Your task to perform on an android device: turn on priority inbox in the gmail app Image 0: 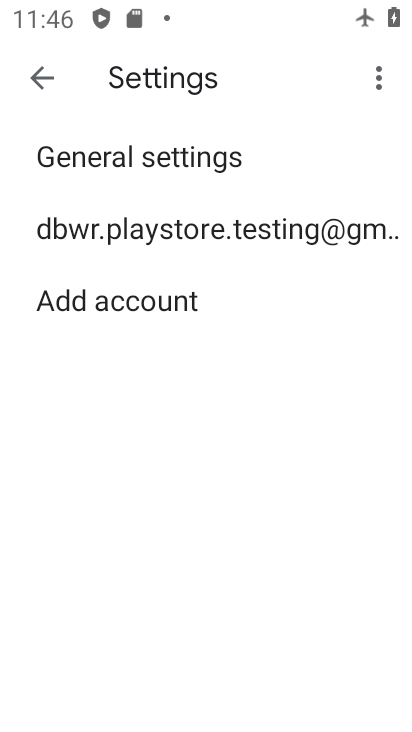
Step 0: press home button
Your task to perform on an android device: turn on priority inbox in the gmail app Image 1: 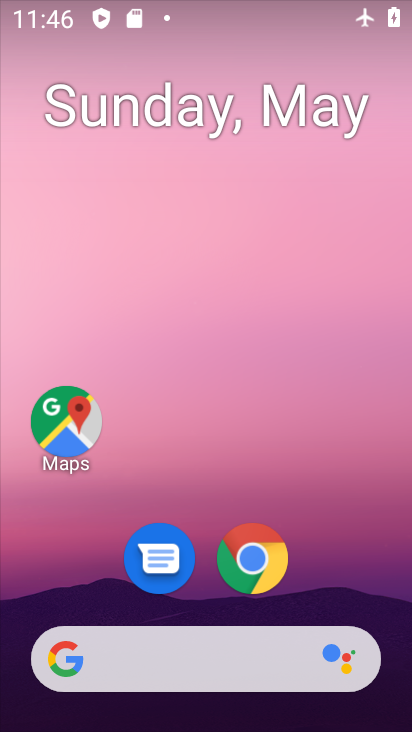
Step 1: drag from (359, 545) to (345, 196)
Your task to perform on an android device: turn on priority inbox in the gmail app Image 2: 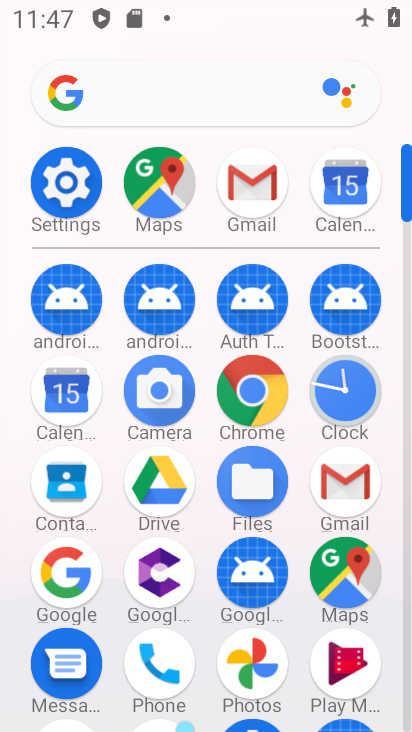
Step 2: click (354, 481)
Your task to perform on an android device: turn on priority inbox in the gmail app Image 3: 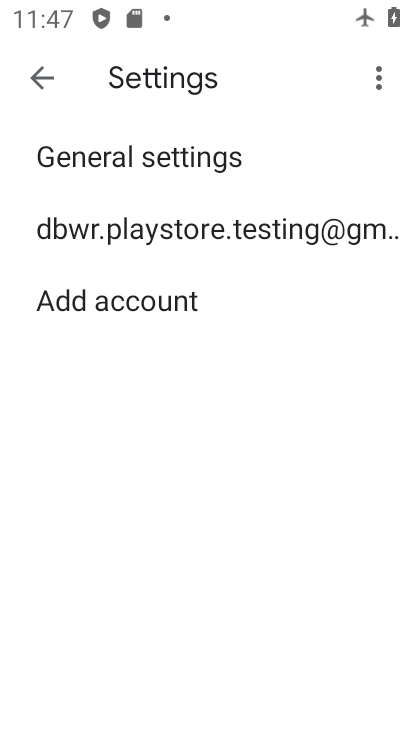
Step 3: click (158, 238)
Your task to perform on an android device: turn on priority inbox in the gmail app Image 4: 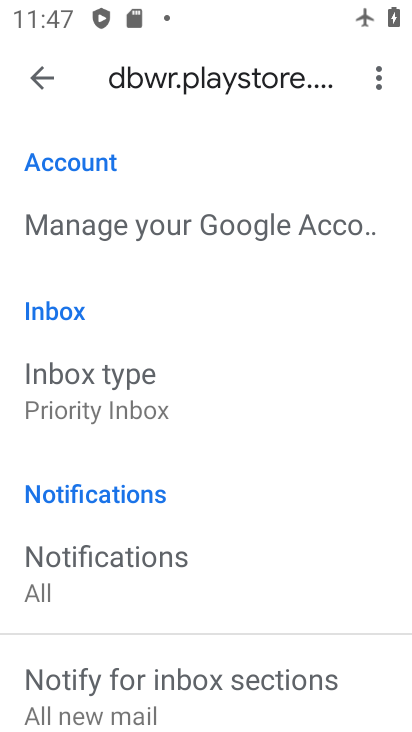
Step 4: click (125, 400)
Your task to perform on an android device: turn on priority inbox in the gmail app Image 5: 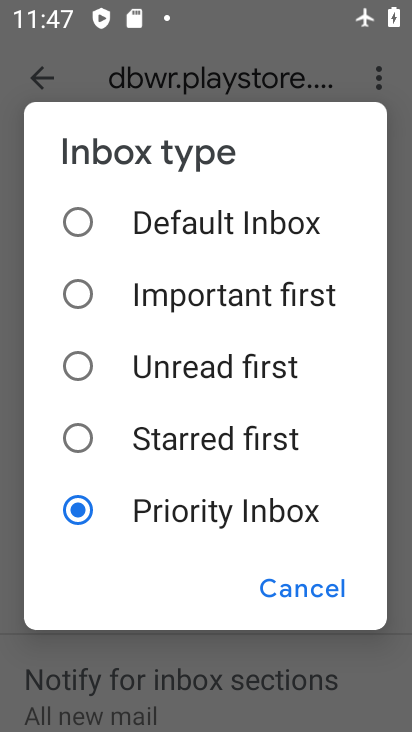
Step 5: task complete